Your task to perform on an android device: turn off translation in the chrome app Image 0: 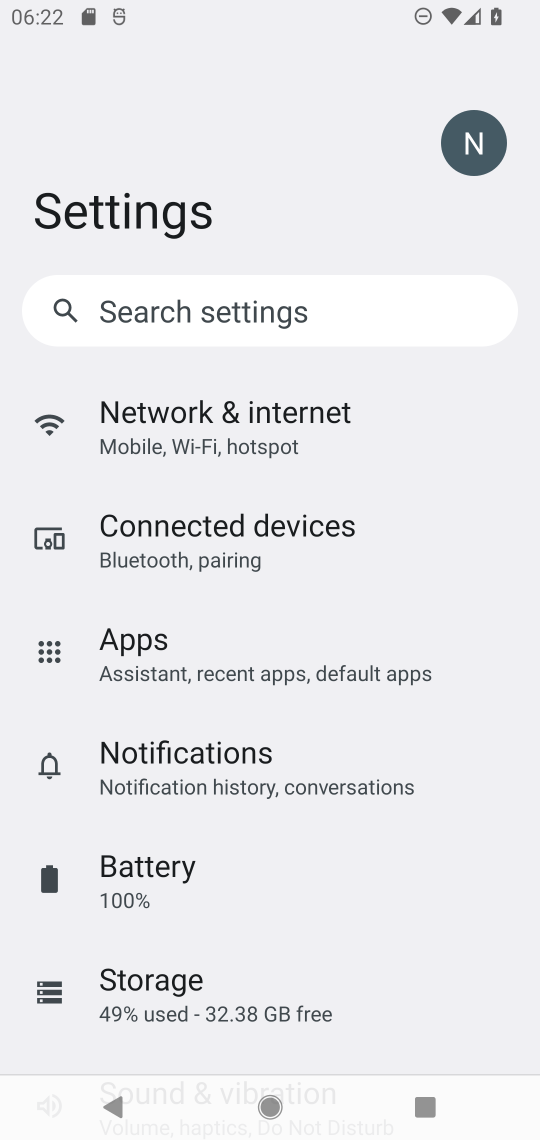
Step 0: press home button
Your task to perform on an android device: turn off translation in the chrome app Image 1: 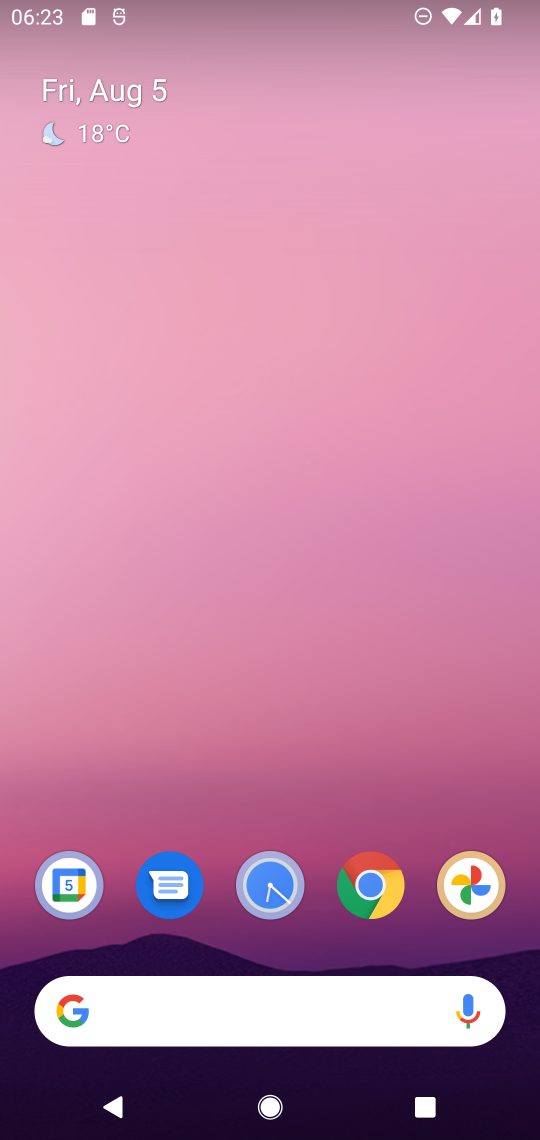
Step 1: drag from (323, 914) to (336, 117)
Your task to perform on an android device: turn off translation in the chrome app Image 2: 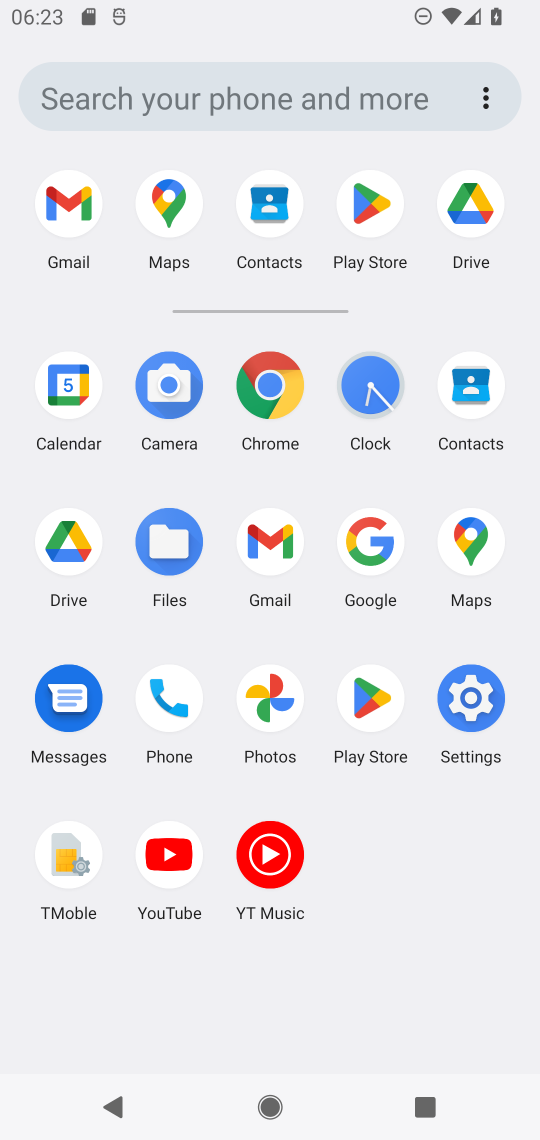
Step 2: click (267, 391)
Your task to perform on an android device: turn off translation in the chrome app Image 3: 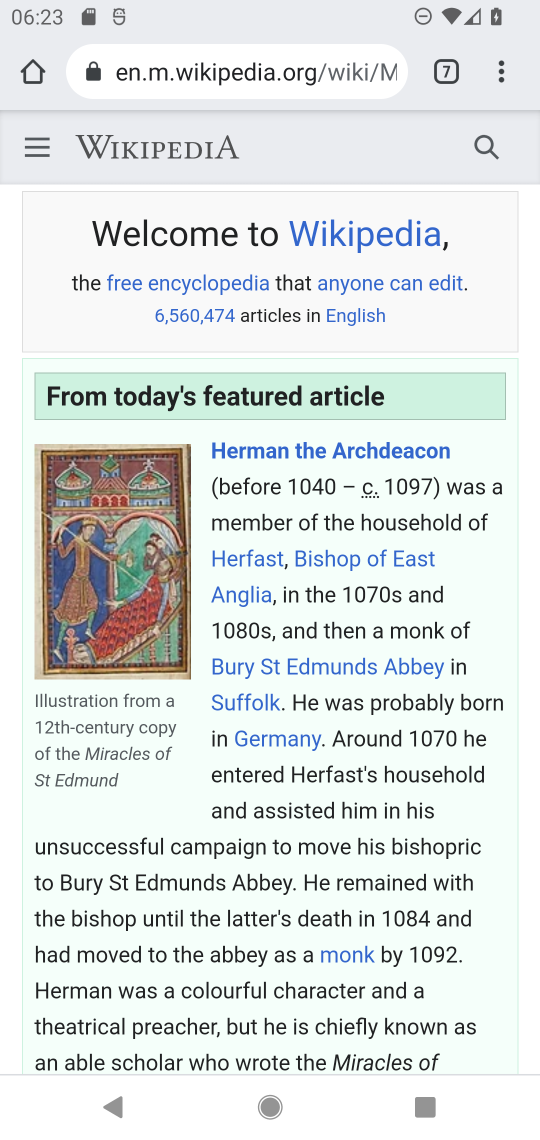
Step 3: click (501, 76)
Your task to perform on an android device: turn off translation in the chrome app Image 4: 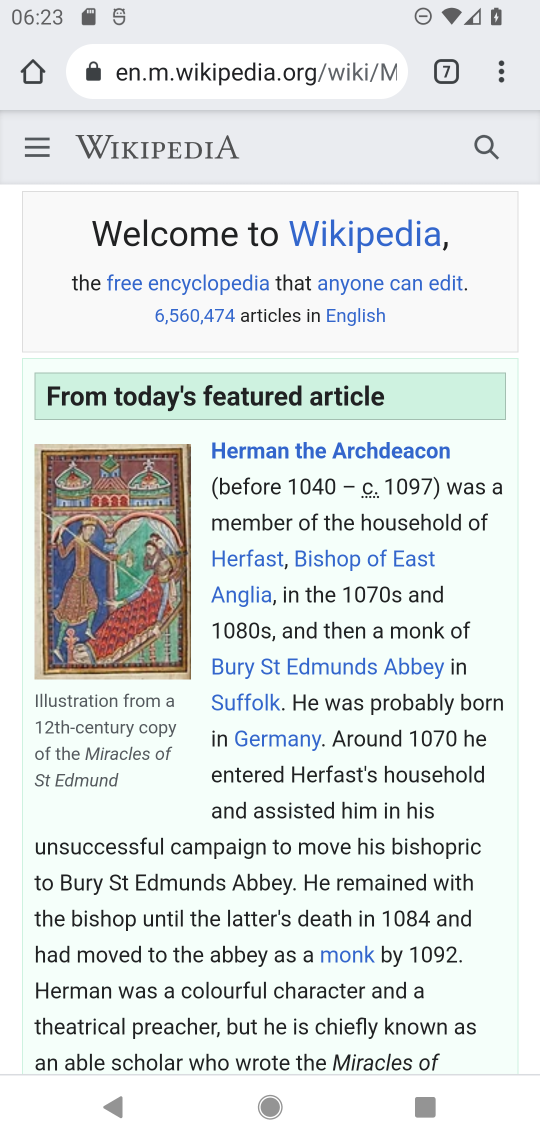
Step 4: click (502, 76)
Your task to perform on an android device: turn off translation in the chrome app Image 5: 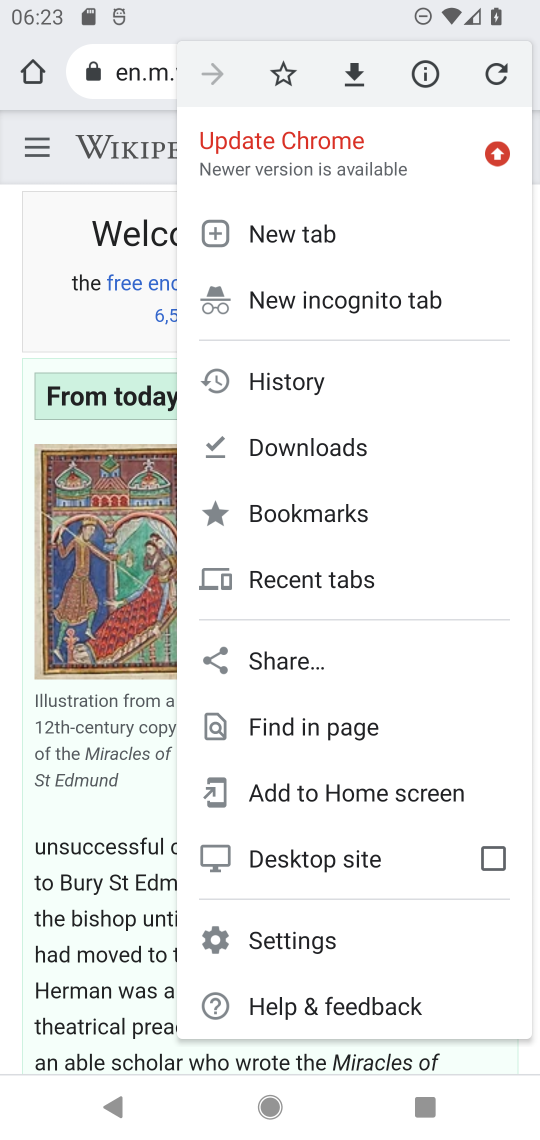
Step 5: click (311, 944)
Your task to perform on an android device: turn off translation in the chrome app Image 6: 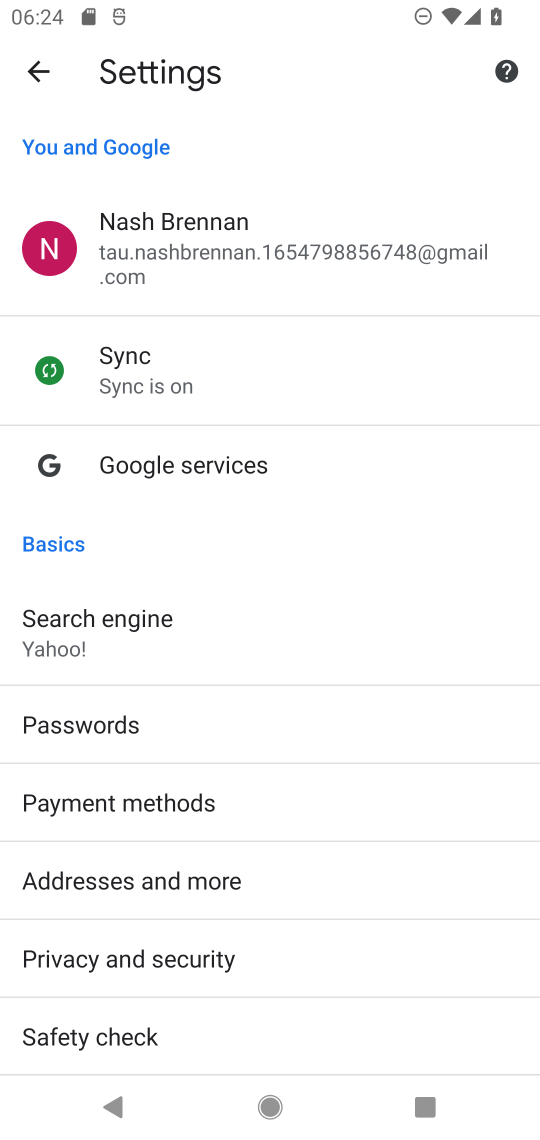
Step 6: drag from (174, 1009) to (172, 480)
Your task to perform on an android device: turn off translation in the chrome app Image 7: 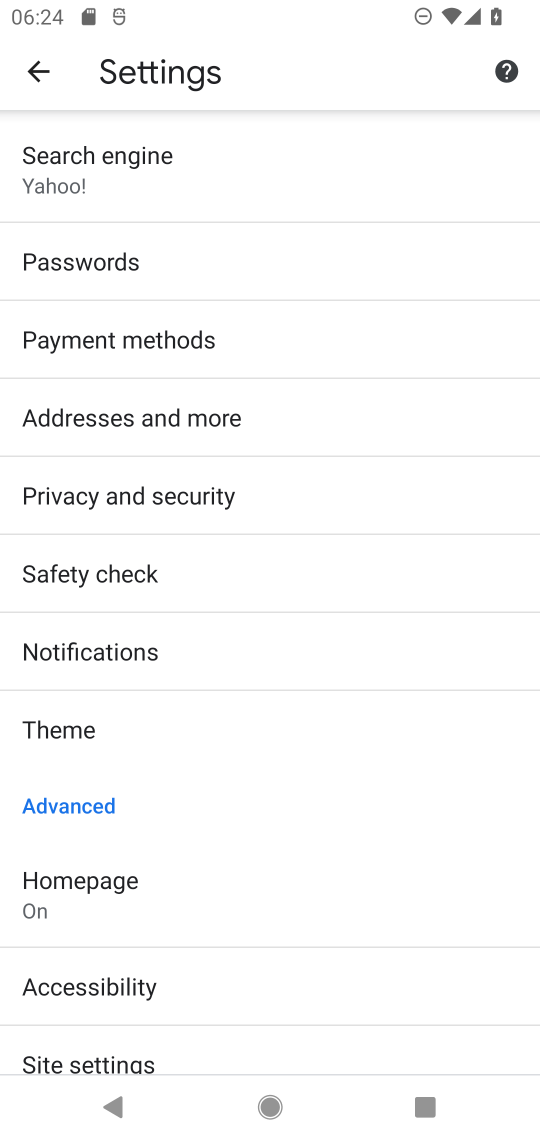
Step 7: drag from (152, 980) to (194, 567)
Your task to perform on an android device: turn off translation in the chrome app Image 8: 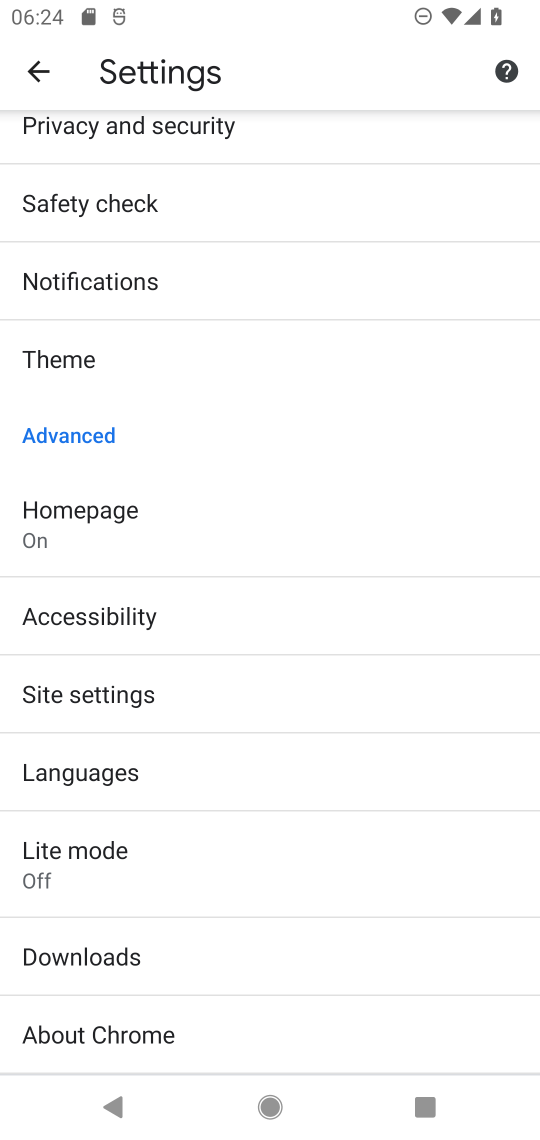
Step 8: click (116, 771)
Your task to perform on an android device: turn off translation in the chrome app Image 9: 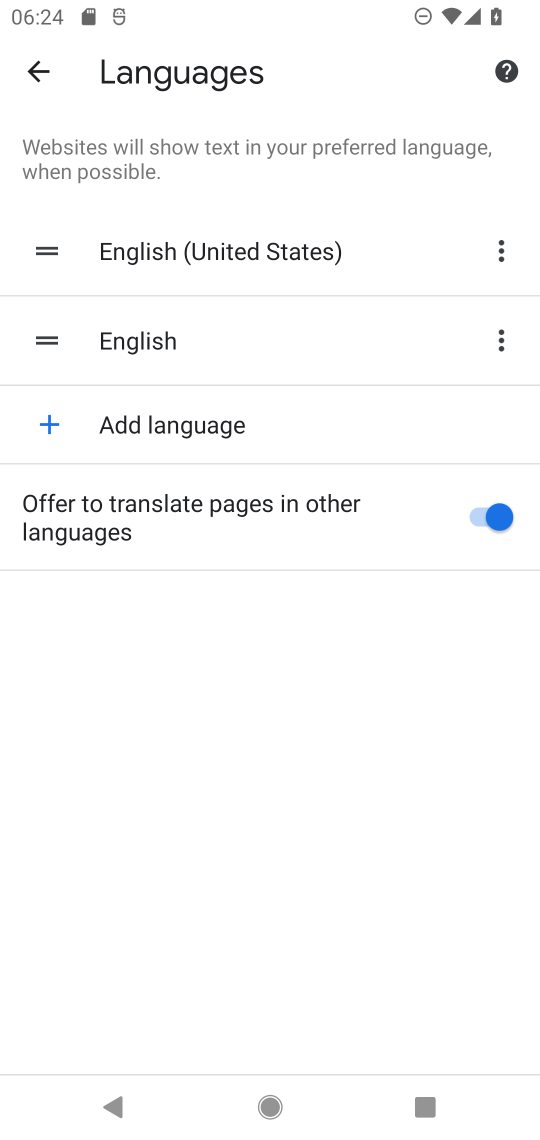
Step 9: click (486, 507)
Your task to perform on an android device: turn off translation in the chrome app Image 10: 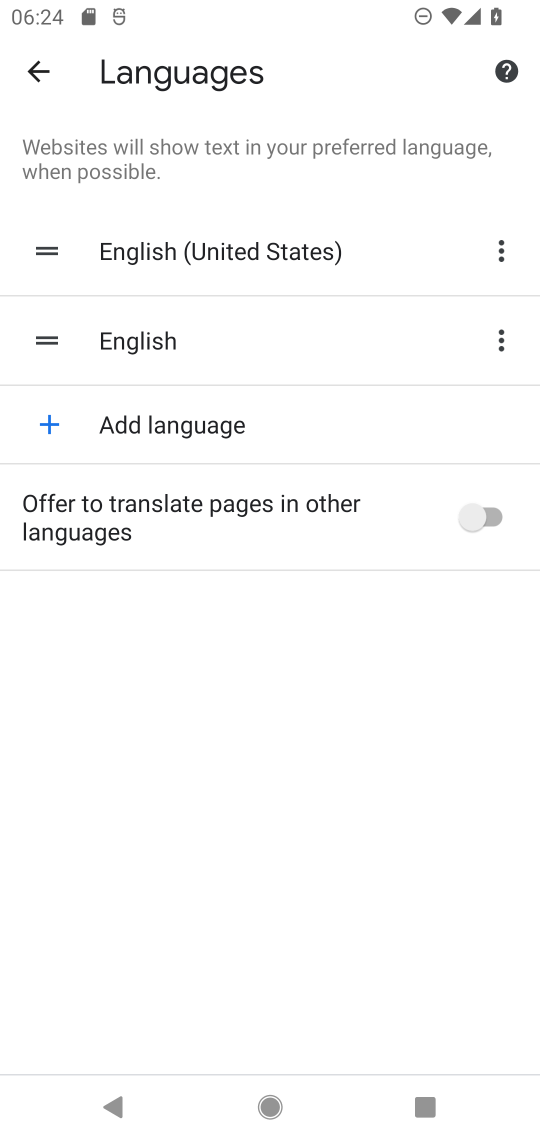
Step 10: task complete